Your task to perform on an android device: When is my next appointment? Image 0: 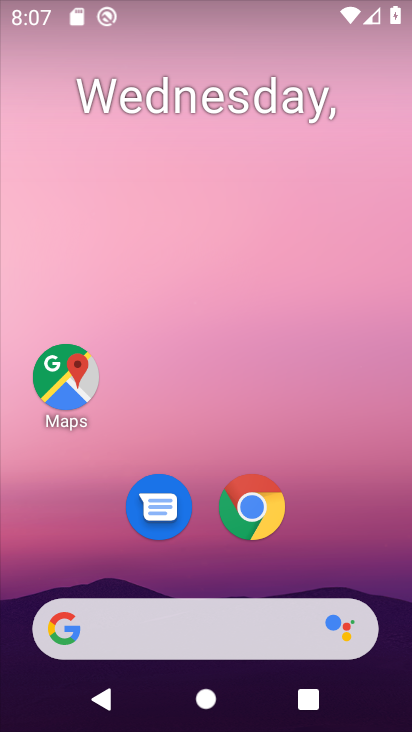
Step 0: drag from (181, 515) to (267, 20)
Your task to perform on an android device: When is my next appointment? Image 1: 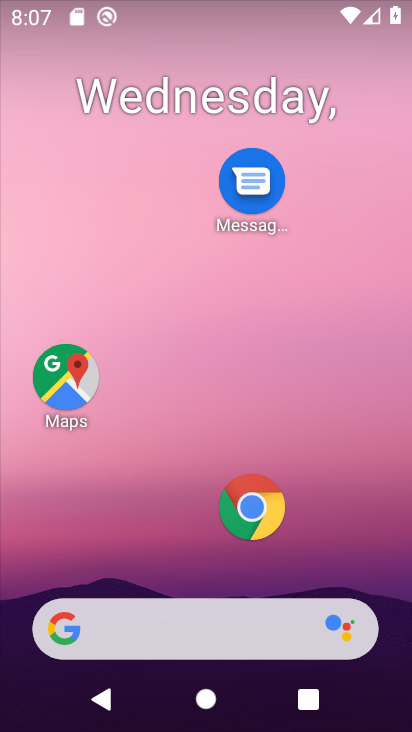
Step 1: drag from (319, 579) to (395, 27)
Your task to perform on an android device: When is my next appointment? Image 2: 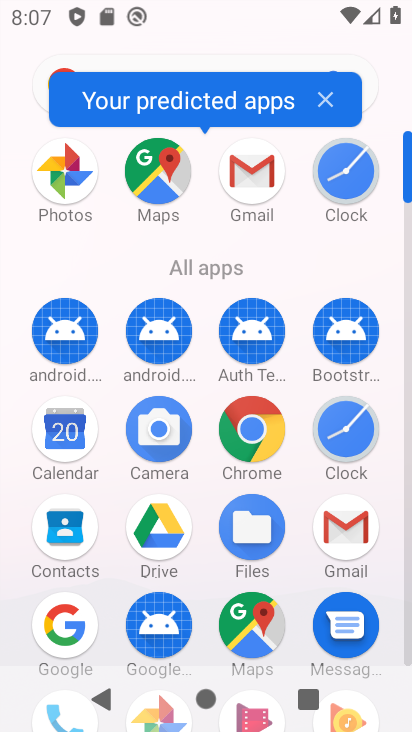
Step 2: click (78, 442)
Your task to perform on an android device: When is my next appointment? Image 3: 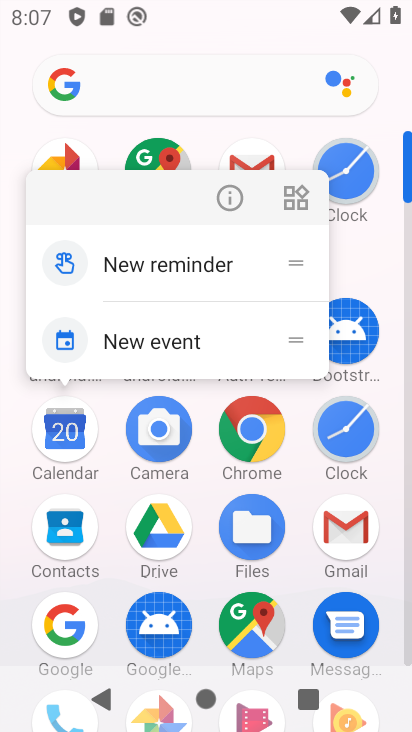
Step 3: click (80, 441)
Your task to perform on an android device: When is my next appointment? Image 4: 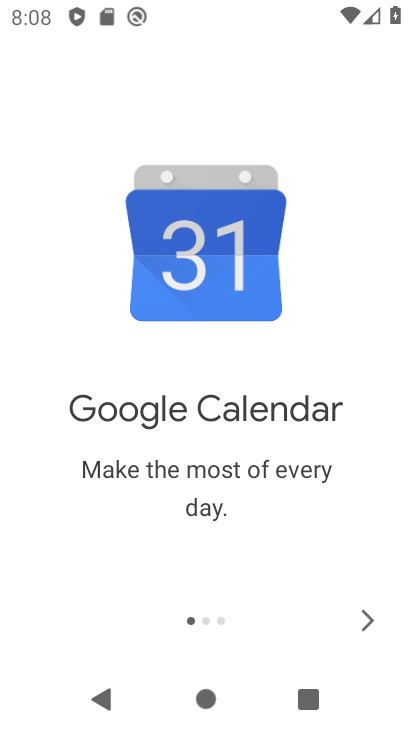
Step 4: click (355, 615)
Your task to perform on an android device: When is my next appointment? Image 5: 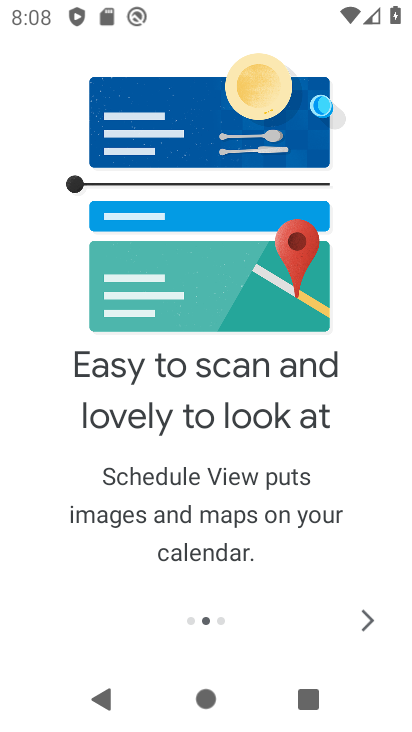
Step 5: click (371, 646)
Your task to perform on an android device: When is my next appointment? Image 6: 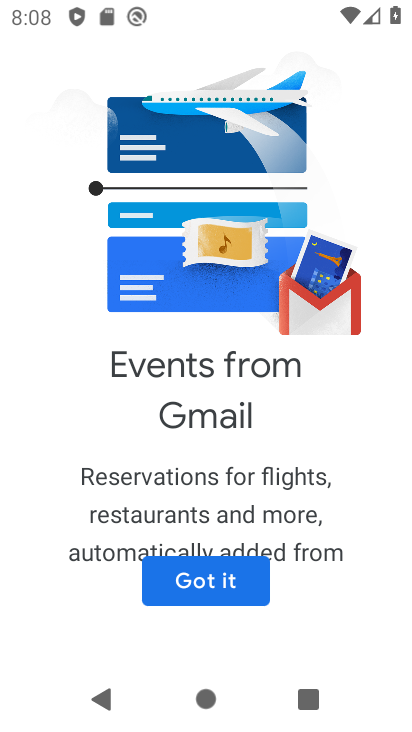
Step 6: click (189, 568)
Your task to perform on an android device: When is my next appointment? Image 7: 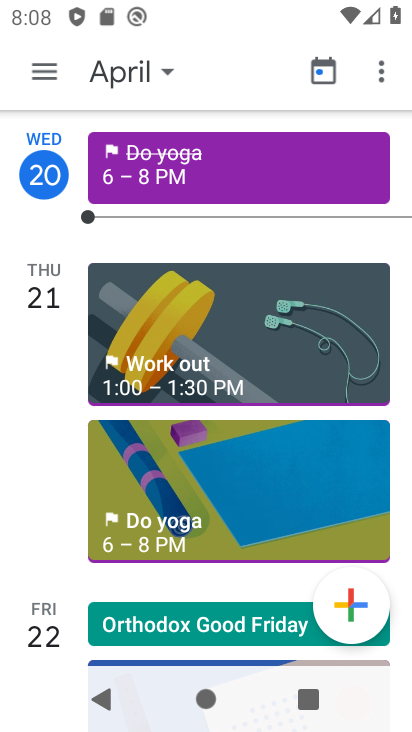
Step 7: drag from (210, 531) to (214, 418)
Your task to perform on an android device: When is my next appointment? Image 8: 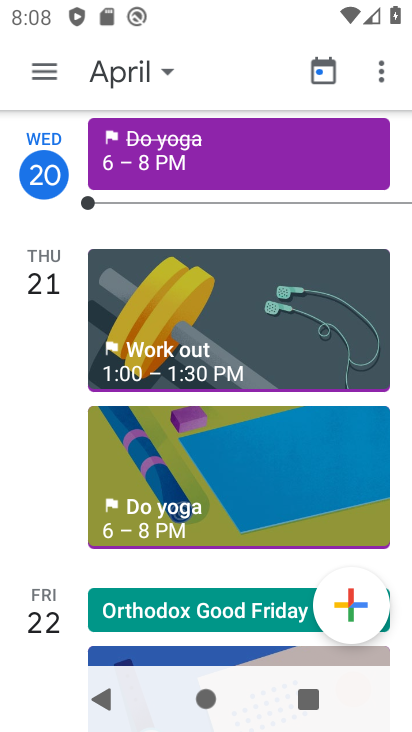
Step 8: click (58, 88)
Your task to perform on an android device: When is my next appointment? Image 9: 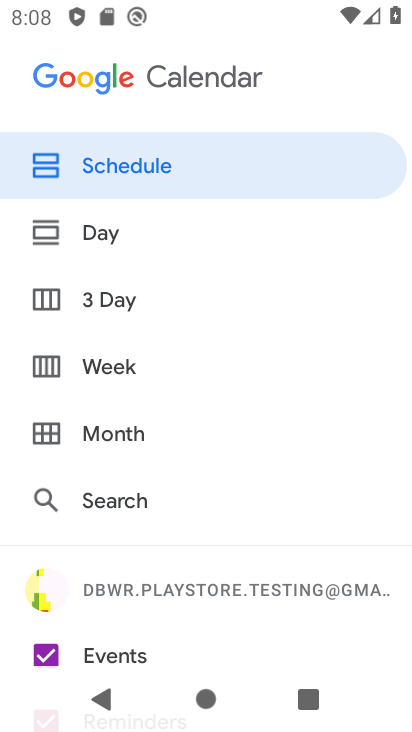
Step 9: drag from (323, 533) to (386, 186)
Your task to perform on an android device: When is my next appointment? Image 10: 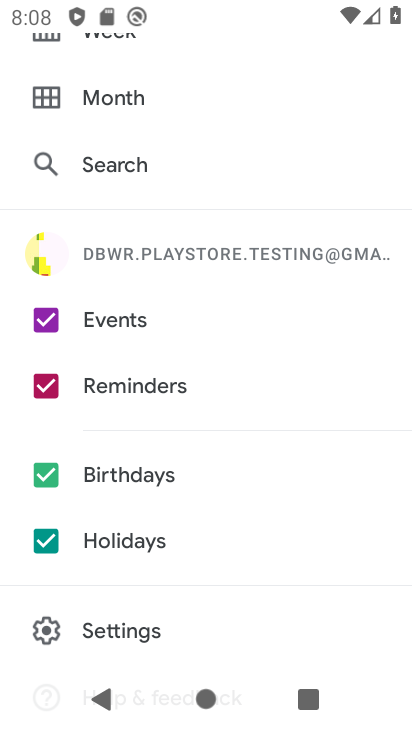
Step 10: click (185, 369)
Your task to perform on an android device: When is my next appointment? Image 11: 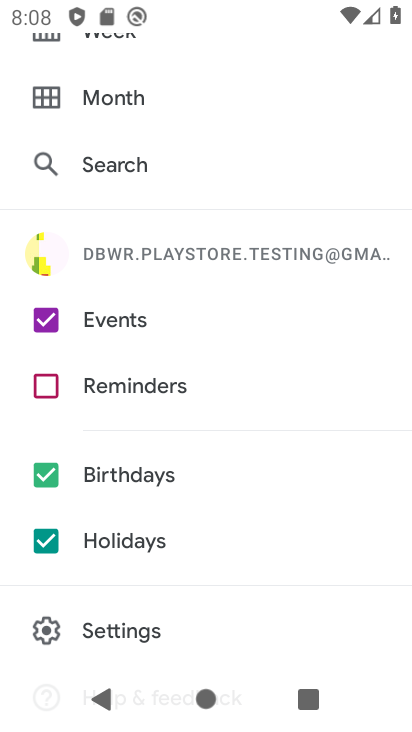
Step 11: click (143, 478)
Your task to perform on an android device: When is my next appointment? Image 12: 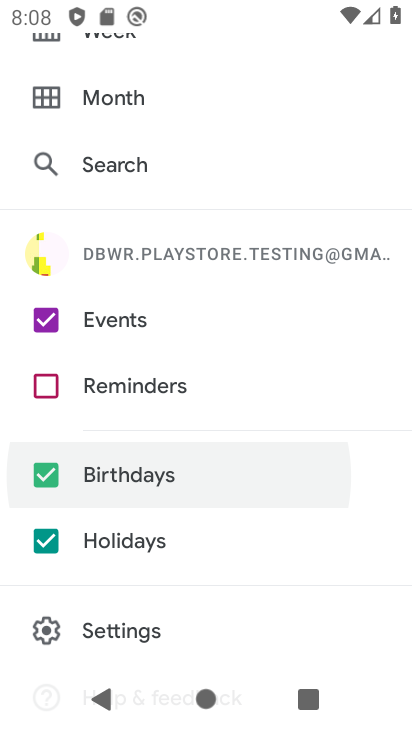
Step 12: click (132, 532)
Your task to perform on an android device: When is my next appointment? Image 13: 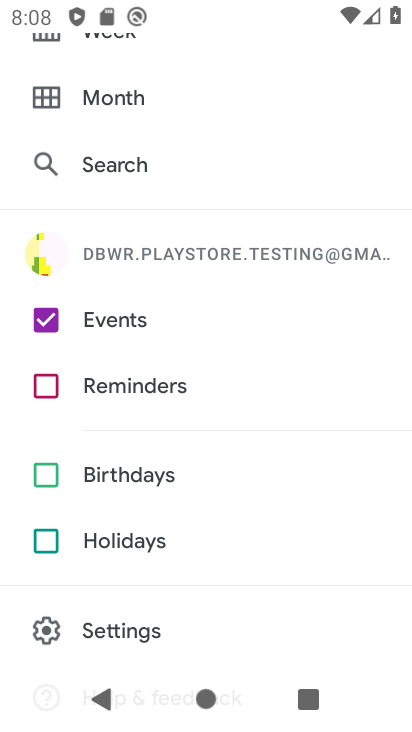
Step 13: press back button
Your task to perform on an android device: When is my next appointment? Image 14: 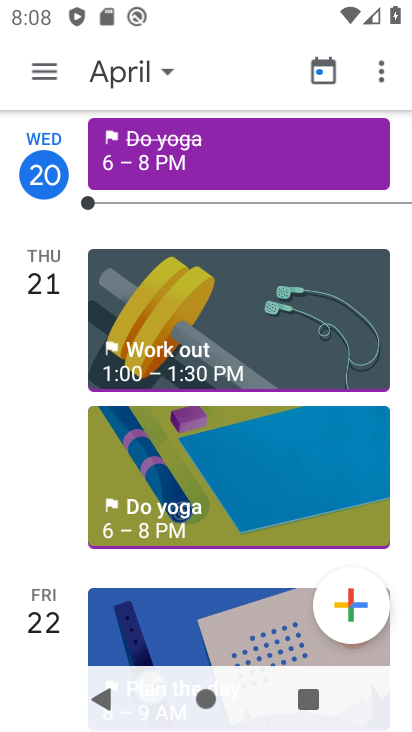
Step 14: drag from (216, 375) to (134, 664)
Your task to perform on an android device: When is my next appointment? Image 15: 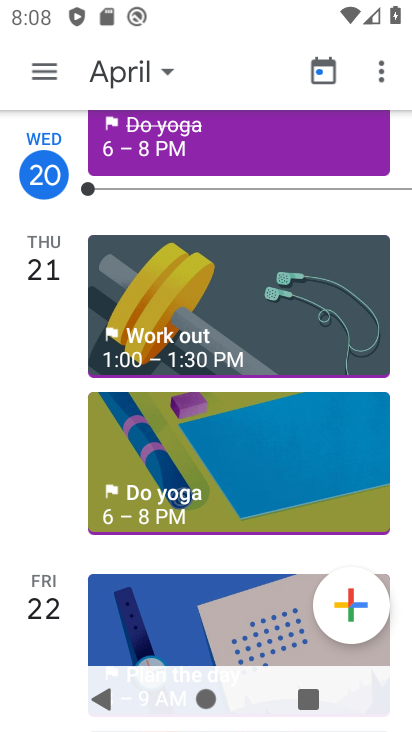
Step 15: click (48, 271)
Your task to perform on an android device: When is my next appointment? Image 16: 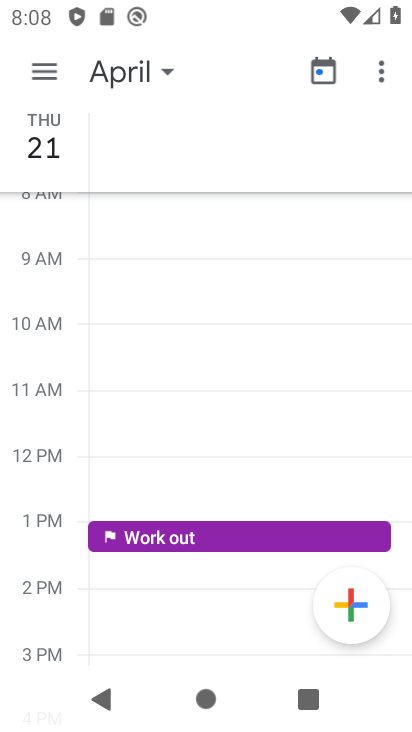
Step 16: task complete